Your task to perform on an android device: Go to Maps Image 0: 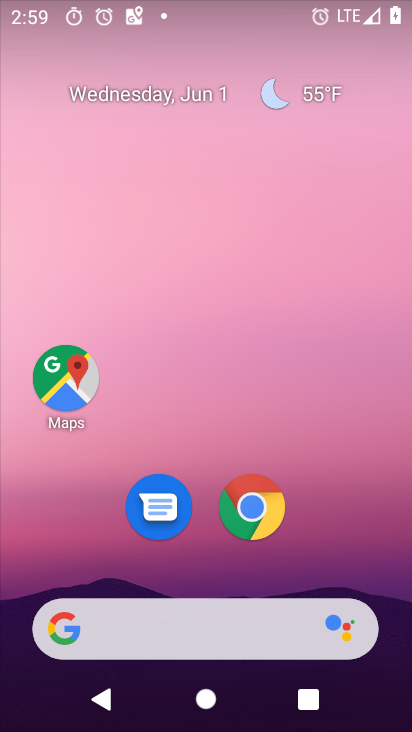
Step 0: click (64, 386)
Your task to perform on an android device: Go to Maps Image 1: 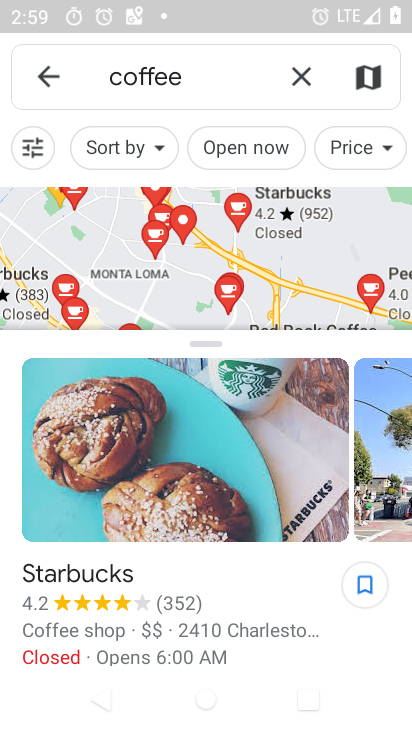
Step 1: click (295, 81)
Your task to perform on an android device: Go to Maps Image 2: 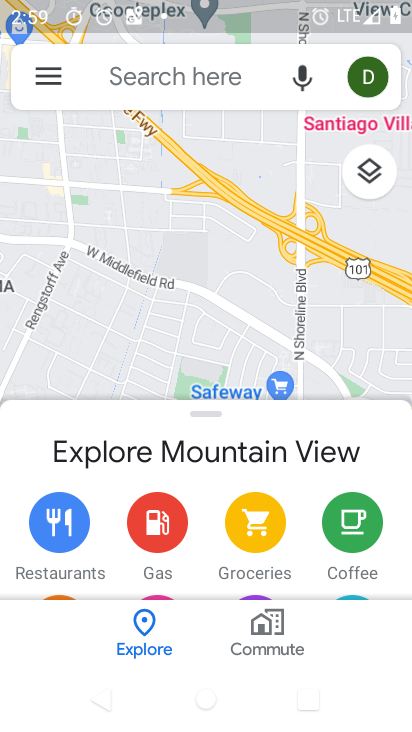
Step 2: task complete